Your task to perform on an android device: change alarm snooze length Image 0: 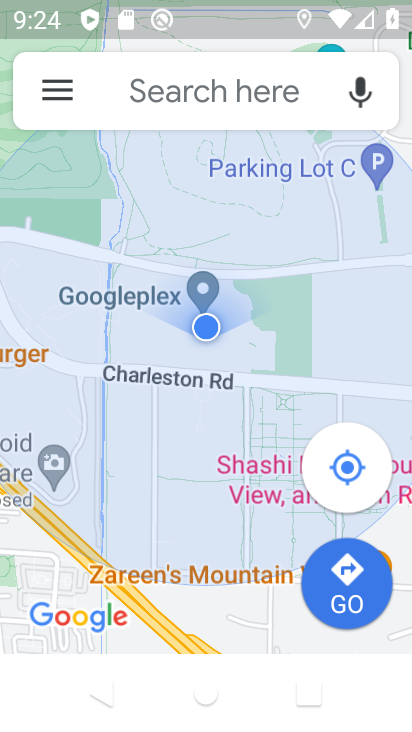
Step 0: drag from (215, 489) to (294, 22)
Your task to perform on an android device: change alarm snooze length Image 1: 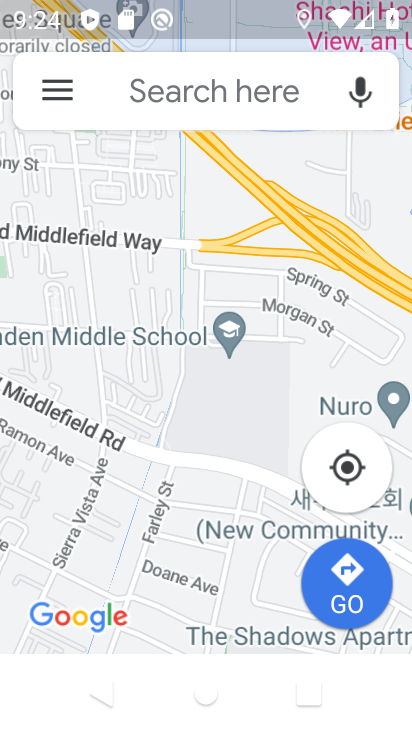
Step 1: drag from (128, 585) to (178, 185)
Your task to perform on an android device: change alarm snooze length Image 2: 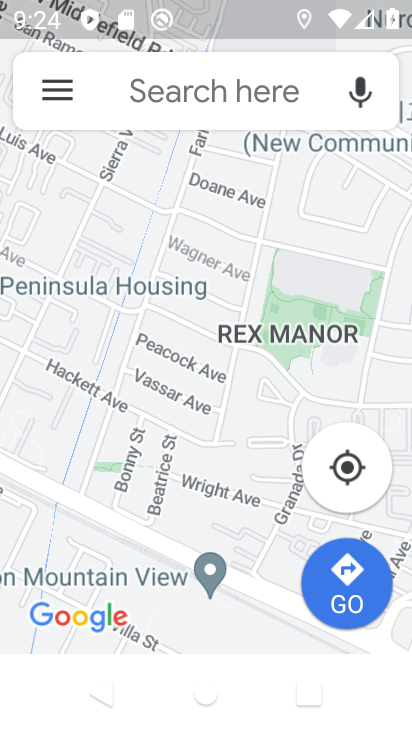
Step 2: press home button
Your task to perform on an android device: change alarm snooze length Image 3: 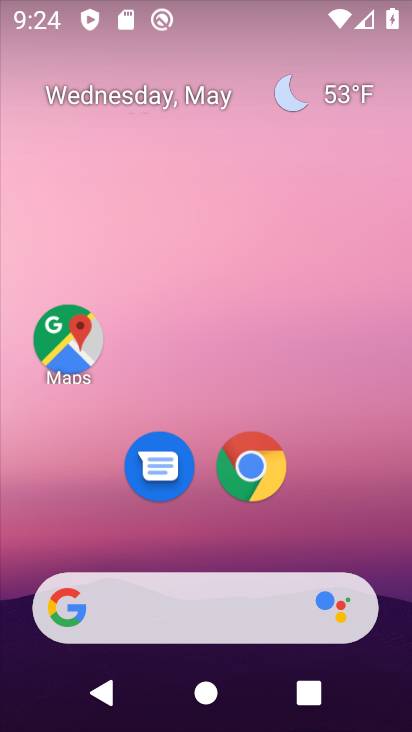
Step 3: drag from (219, 545) to (229, 9)
Your task to perform on an android device: change alarm snooze length Image 4: 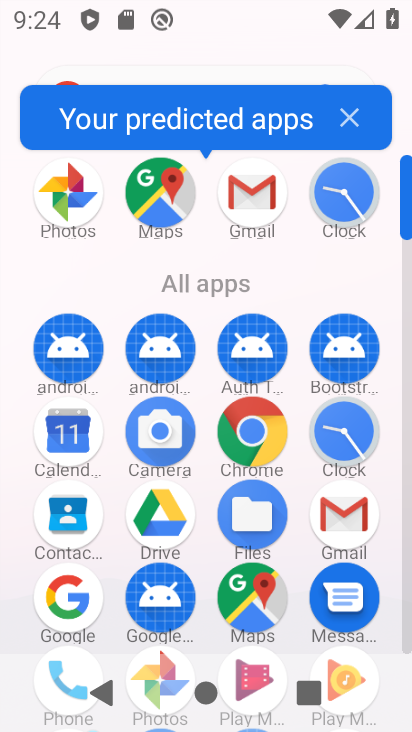
Step 4: drag from (197, 567) to (261, 103)
Your task to perform on an android device: change alarm snooze length Image 5: 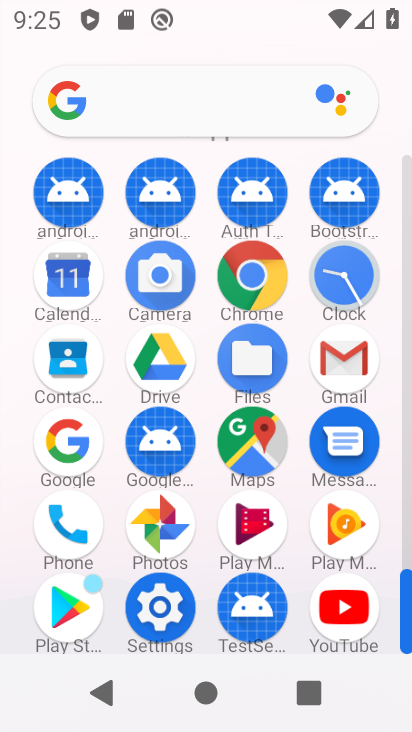
Step 5: click (334, 283)
Your task to perform on an android device: change alarm snooze length Image 6: 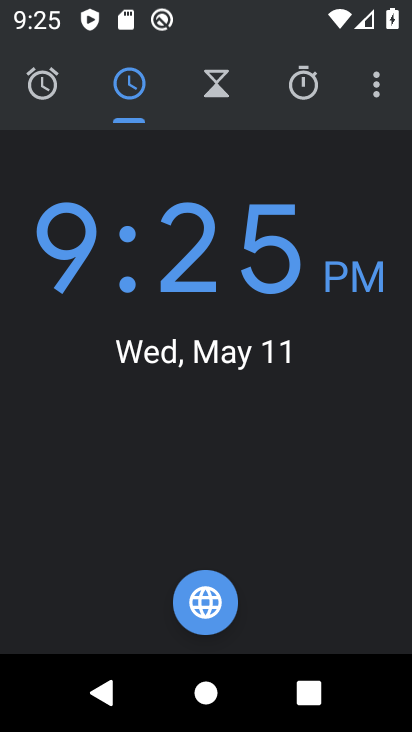
Step 6: click (383, 86)
Your task to perform on an android device: change alarm snooze length Image 7: 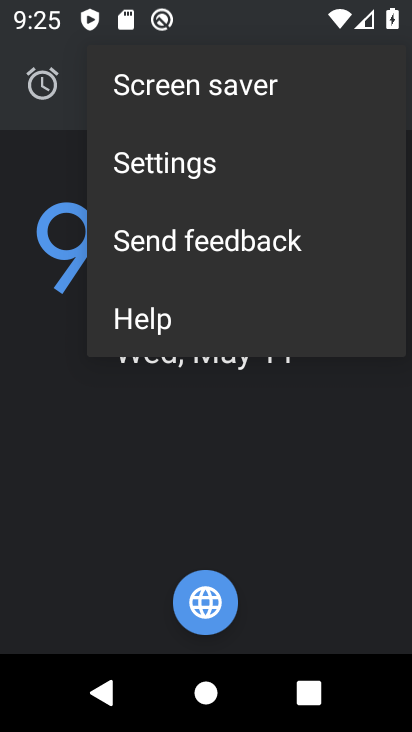
Step 7: click (218, 158)
Your task to perform on an android device: change alarm snooze length Image 8: 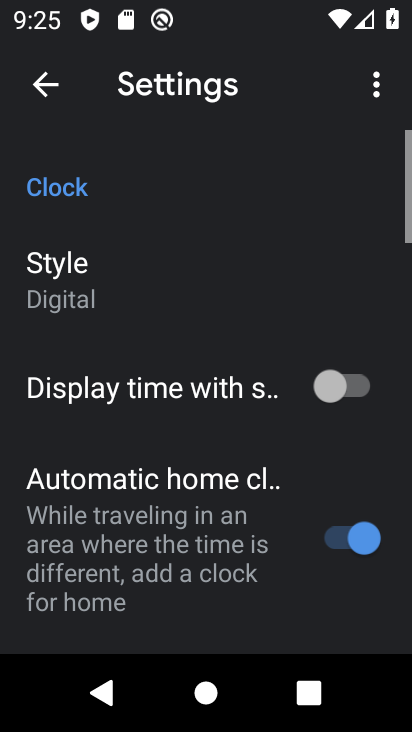
Step 8: drag from (155, 469) to (196, 167)
Your task to perform on an android device: change alarm snooze length Image 9: 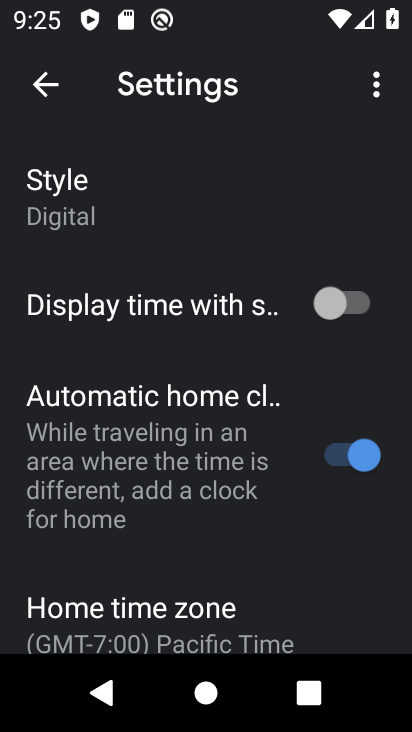
Step 9: drag from (237, 534) to (289, 34)
Your task to perform on an android device: change alarm snooze length Image 10: 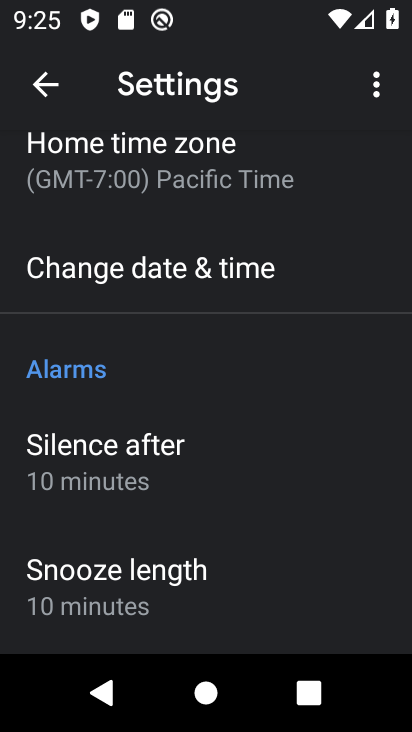
Step 10: click (180, 579)
Your task to perform on an android device: change alarm snooze length Image 11: 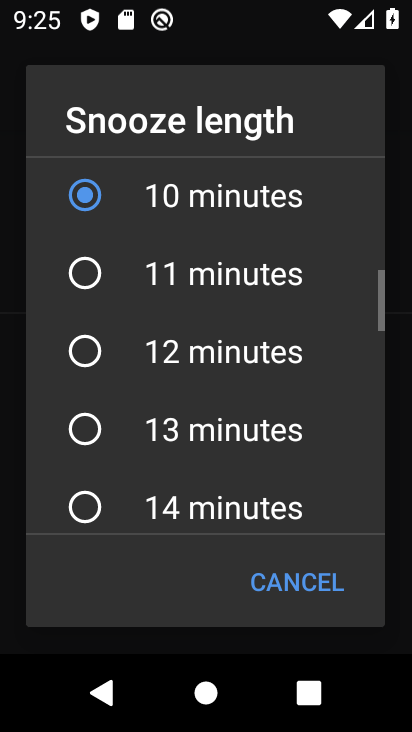
Step 11: click (182, 354)
Your task to perform on an android device: change alarm snooze length Image 12: 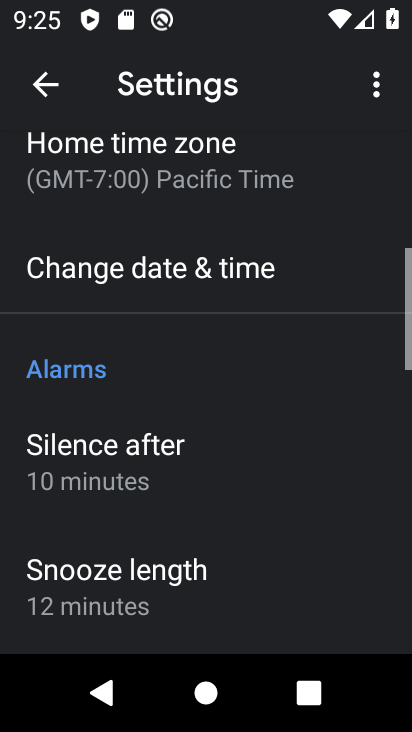
Step 12: task complete